Your task to perform on an android device: add a label to a message in the gmail app Image 0: 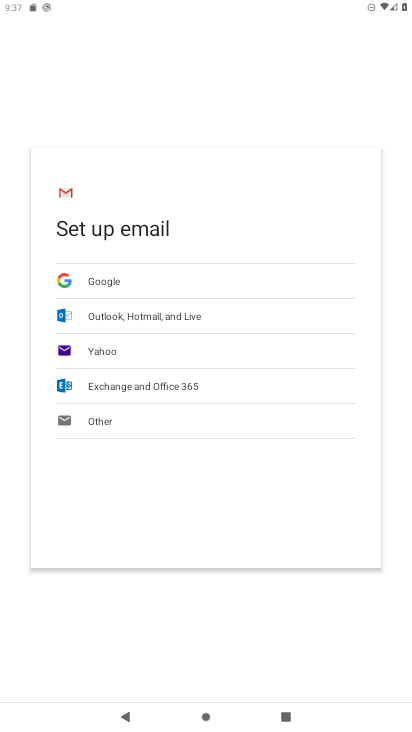
Step 0: press home button
Your task to perform on an android device: add a label to a message in the gmail app Image 1: 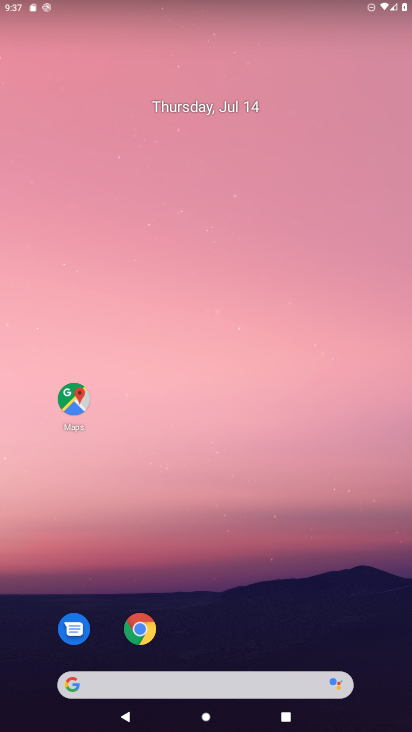
Step 1: drag from (226, 634) to (287, 62)
Your task to perform on an android device: add a label to a message in the gmail app Image 2: 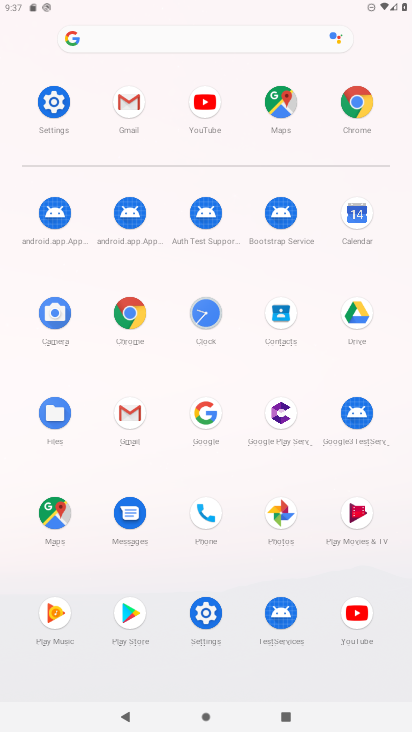
Step 2: click (128, 411)
Your task to perform on an android device: add a label to a message in the gmail app Image 3: 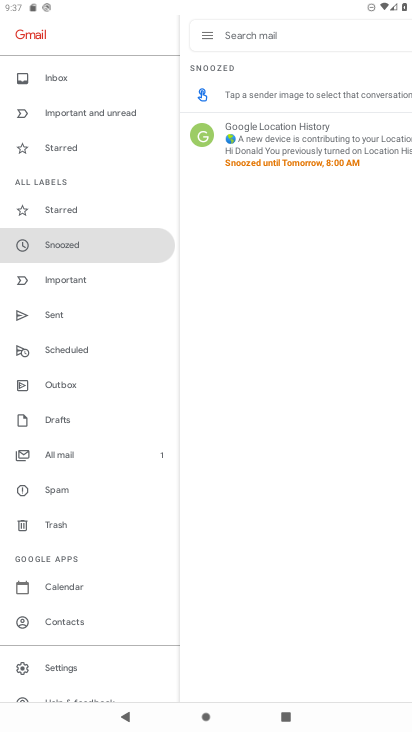
Step 3: click (91, 82)
Your task to perform on an android device: add a label to a message in the gmail app Image 4: 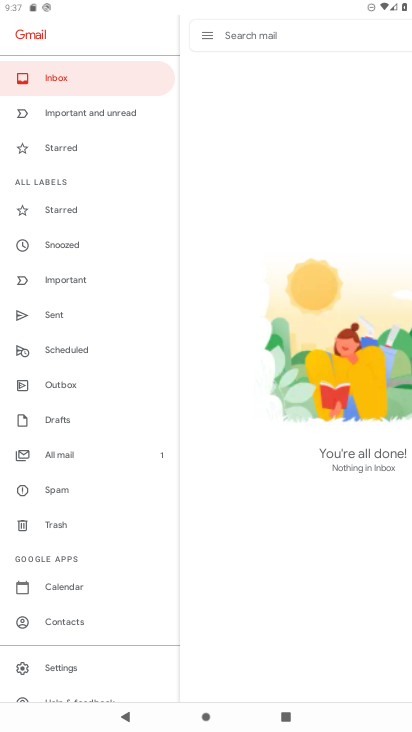
Step 4: task complete